Your task to perform on an android device: add a label to a message in the gmail app Image 0: 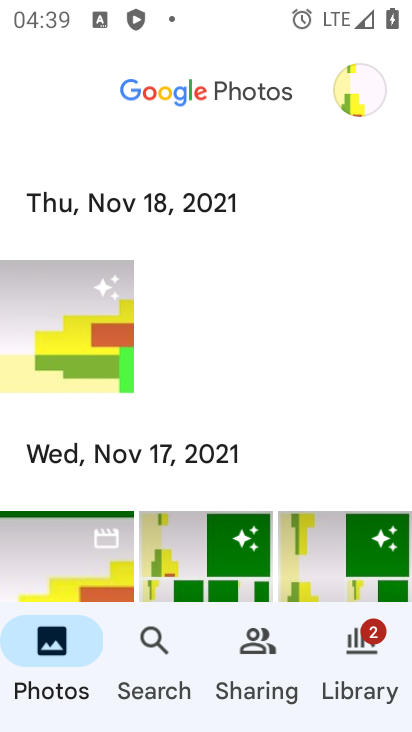
Step 0: press home button
Your task to perform on an android device: add a label to a message in the gmail app Image 1: 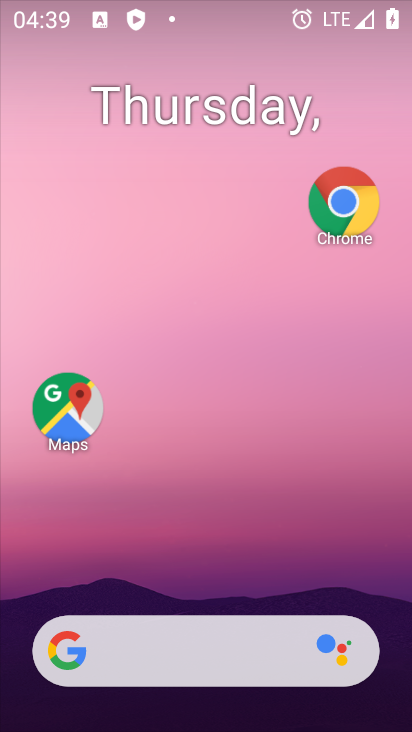
Step 1: drag from (295, 533) to (326, 0)
Your task to perform on an android device: add a label to a message in the gmail app Image 2: 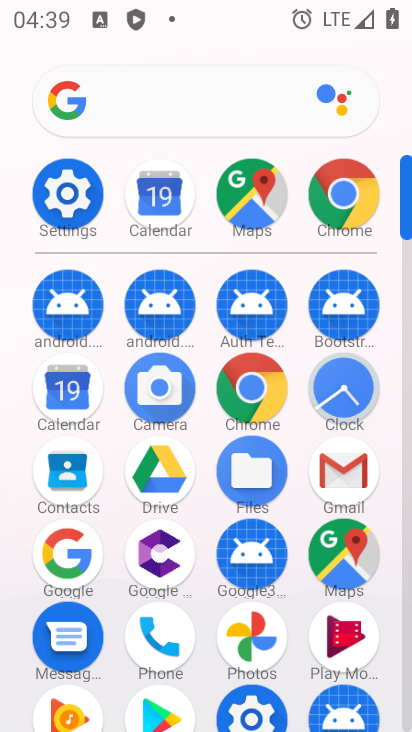
Step 2: click (343, 460)
Your task to perform on an android device: add a label to a message in the gmail app Image 3: 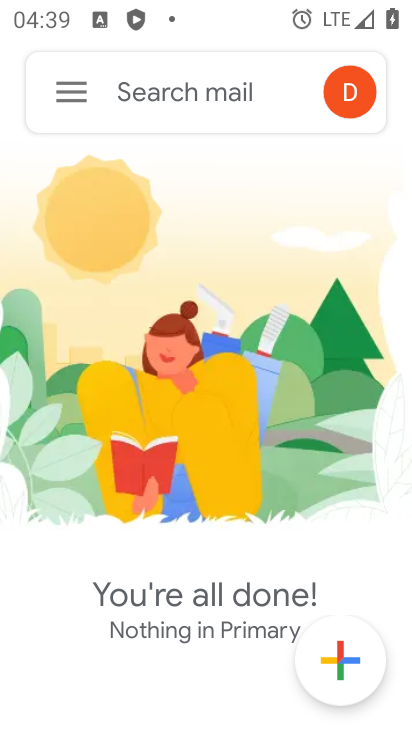
Step 3: click (81, 102)
Your task to perform on an android device: add a label to a message in the gmail app Image 4: 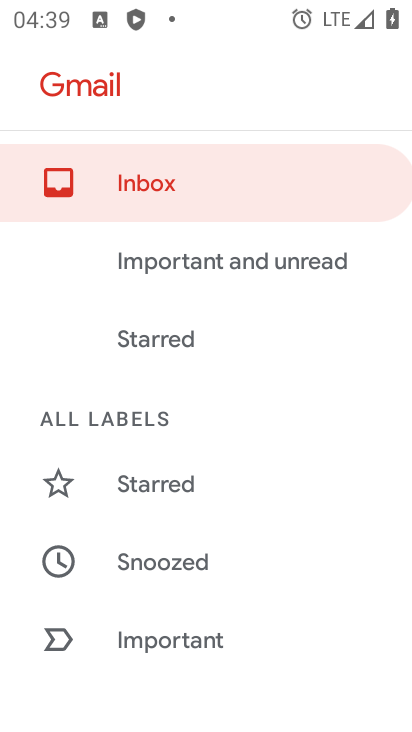
Step 4: drag from (258, 583) to (275, 39)
Your task to perform on an android device: add a label to a message in the gmail app Image 5: 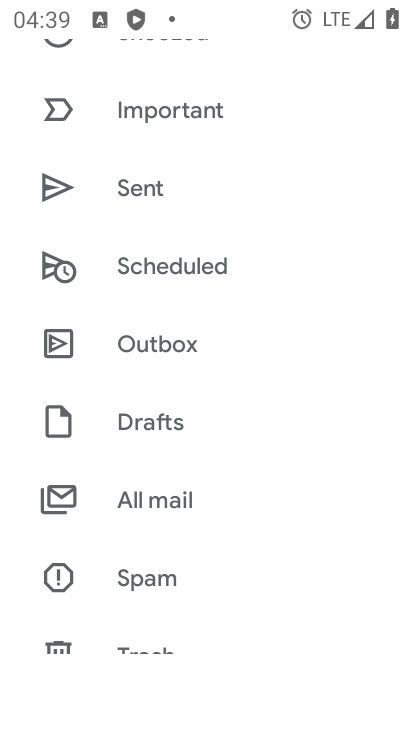
Step 5: click (177, 203)
Your task to perform on an android device: add a label to a message in the gmail app Image 6: 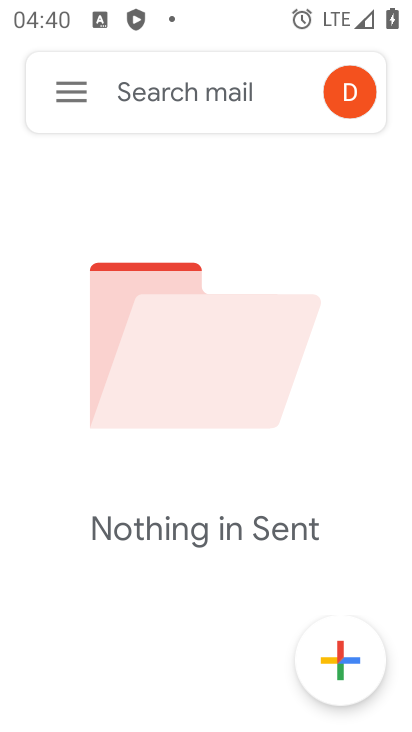
Step 6: task complete